Your task to perform on an android device: empty trash in google photos Image 0: 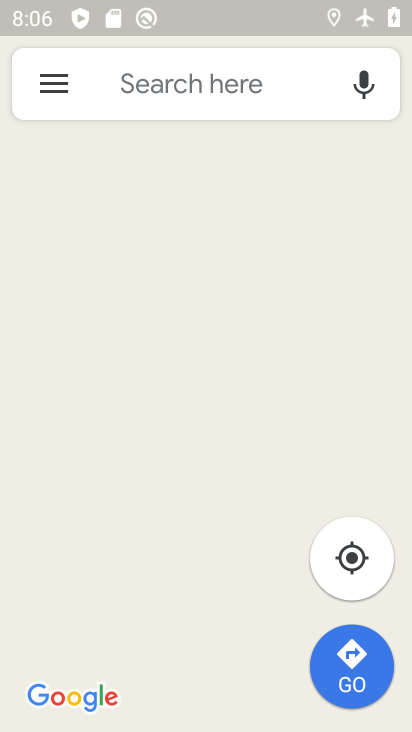
Step 0: press home button
Your task to perform on an android device: empty trash in google photos Image 1: 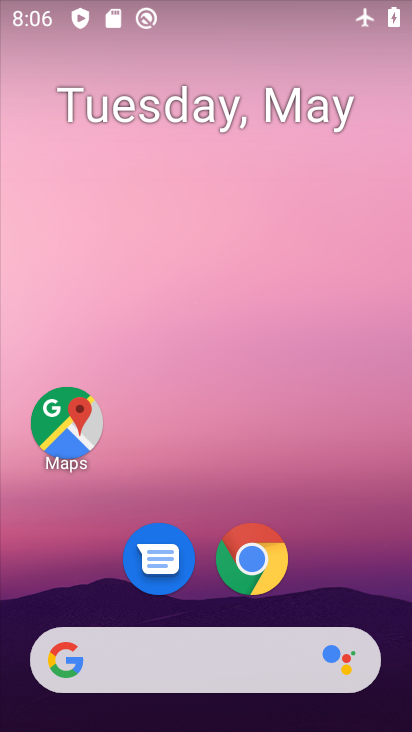
Step 1: drag from (210, 592) to (224, 173)
Your task to perform on an android device: empty trash in google photos Image 2: 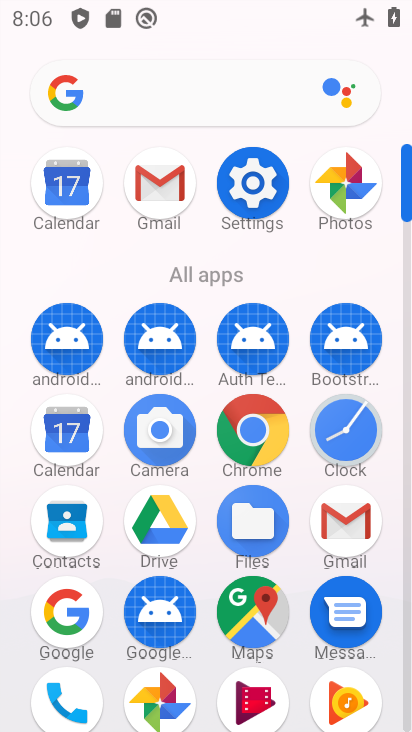
Step 2: click (331, 209)
Your task to perform on an android device: empty trash in google photos Image 3: 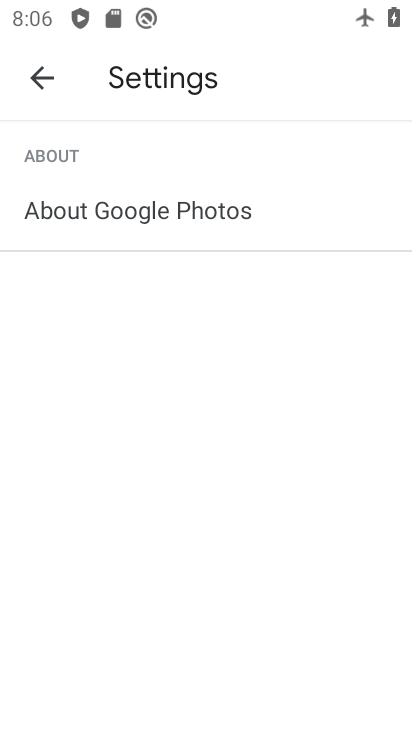
Step 3: click (52, 81)
Your task to perform on an android device: empty trash in google photos Image 4: 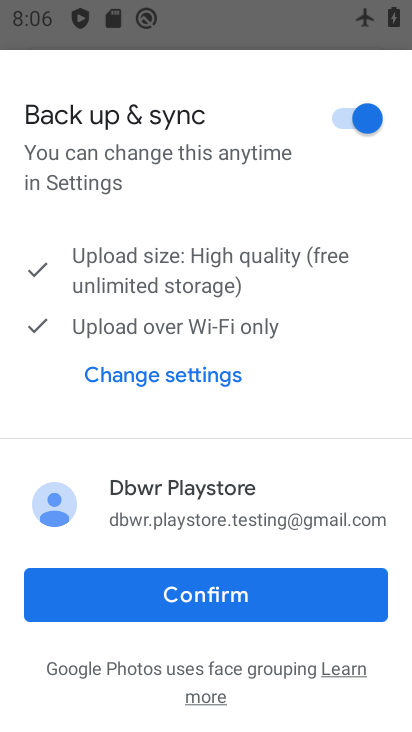
Step 4: click (230, 585)
Your task to perform on an android device: empty trash in google photos Image 5: 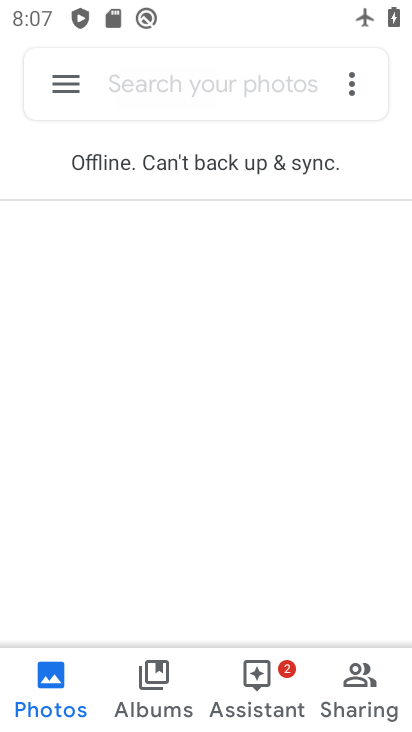
Step 5: click (77, 94)
Your task to perform on an android device: empty trash in google photos Image 6: 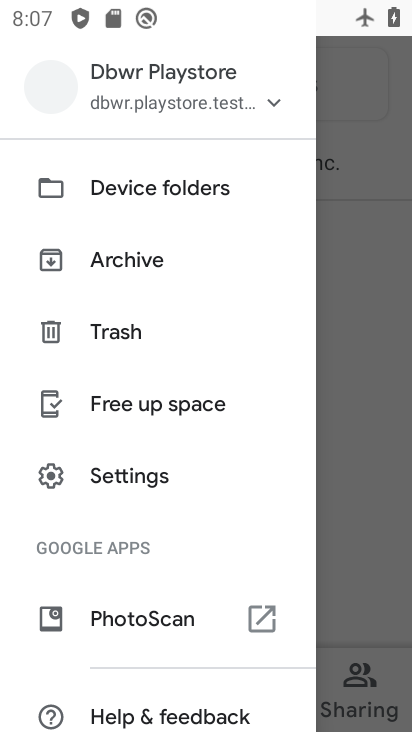
Step 6: drag from (145, 641) to (183, 394)
Your task to perform on an android device: empty trash in google photos Image 7: 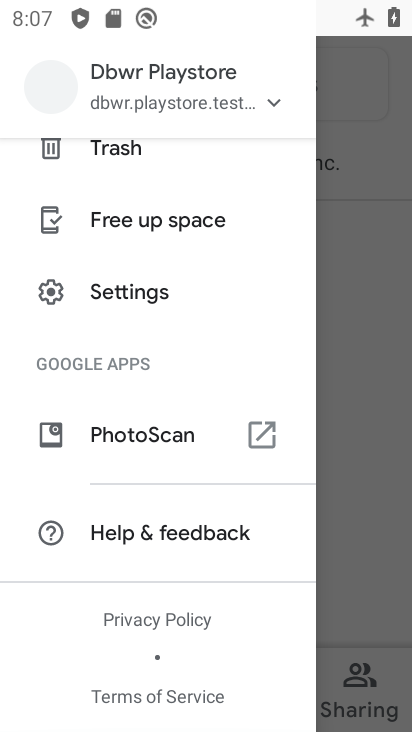
Step 7: click (97, 145)
Your task to perform on an android device: empty trash in google photos Image 8: 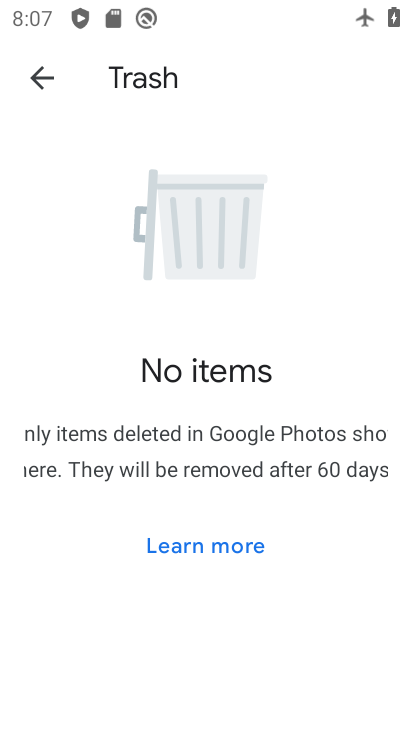
Step 8: task complete